Your task to perform on an android device: Open Google Chrome and click the shortcut for Amazon.com Image 0: 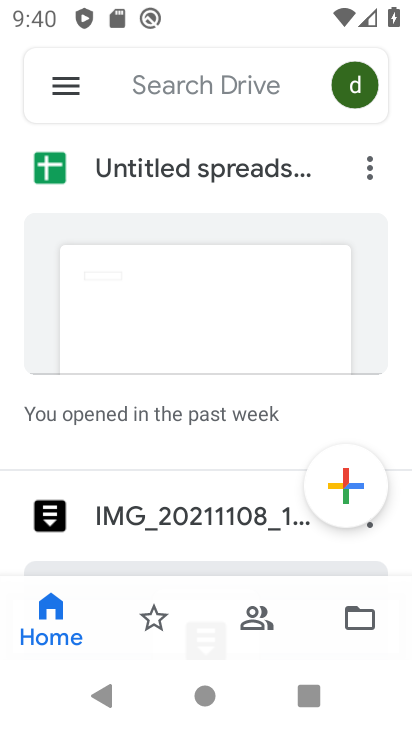
Step 0: press home button
Your task to perform on an android device: Open Google Chrome and click the shortcut for Amazon.com Image 1: 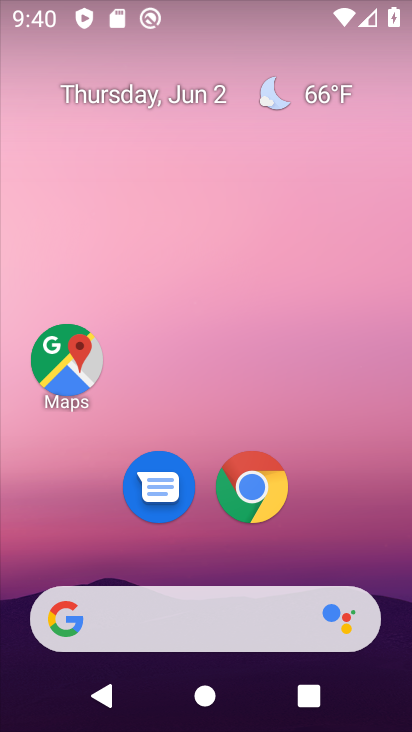
Step 1: click (252, 491)
Your task to perform on an android device: Open Google Chrome and click the shortcut for Amazon.com Image 2: 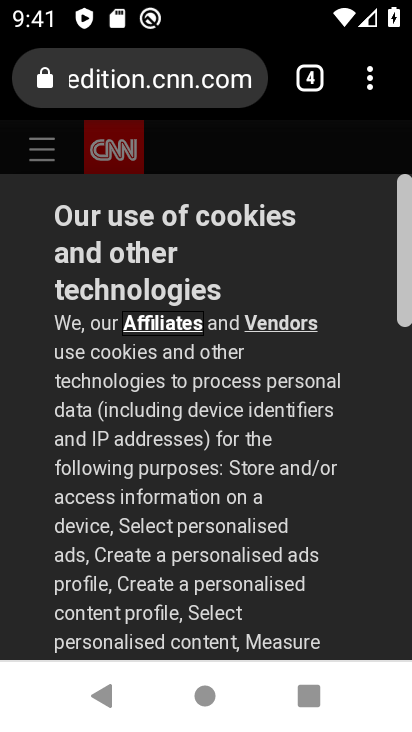
Step 2: click (371, 89)
Your task to perform on an android device: Open Google Chrome and click the shortcut for Amazon.com Image 3: 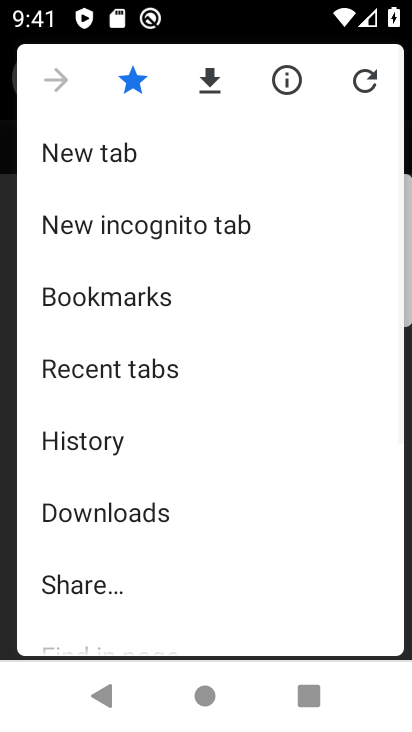
Step 3: click (78, 154)
Your task to perform on an android device: Open Google Chrome and click the shortcut for Amazon.com Image 4: 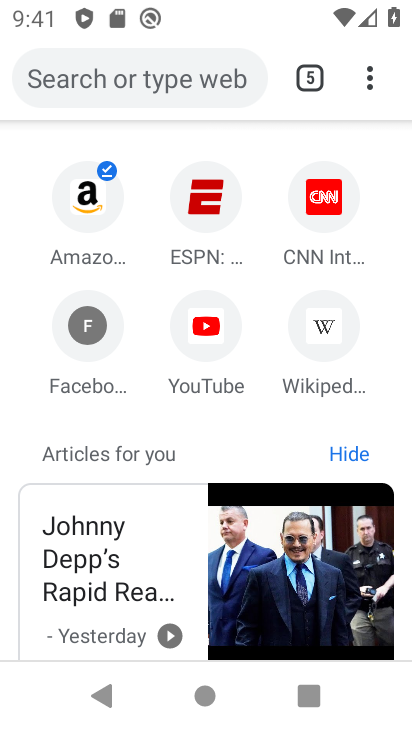
Step 4: click (84, 204)
Your task to perform on an android device: Open Google Chrome and click the shortcut for Amazon.com Image 5: 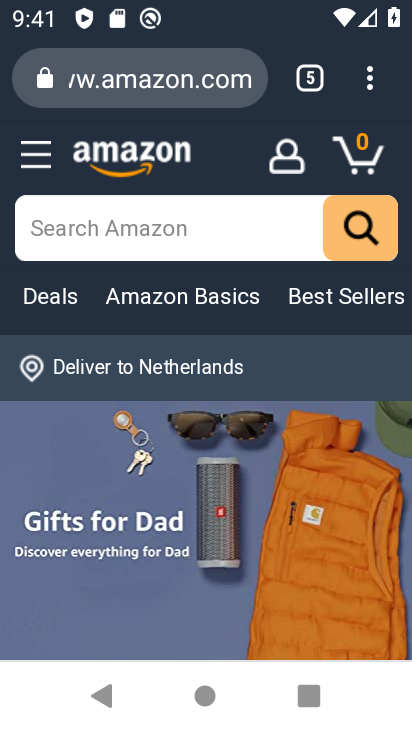
Step 5: task complete